Your task to perform on an android device: toggle priority inbox in the gmail app Image 0: 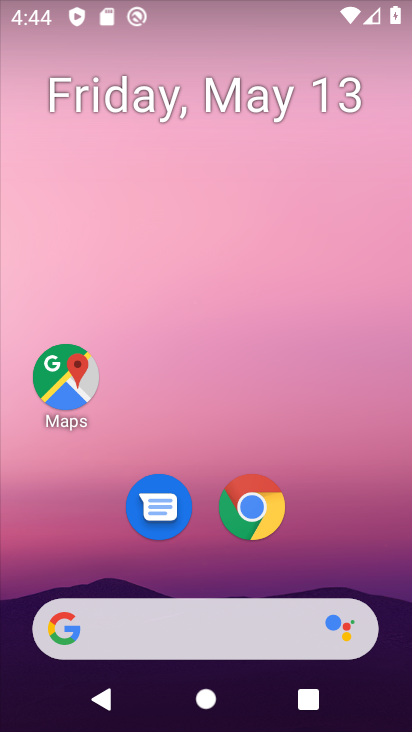
Step 0: drag from (318, 494) to (259, 95)
Your task to perform on an android device: toggle priority inbox in the gmail app Image 1: 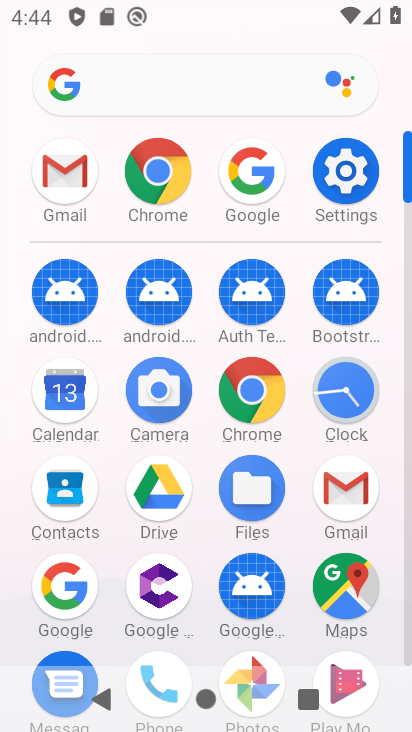
Step 1: click (341, 493)
Your task to perform on an android device: toggle priority inbox in the gmail app Image 2: 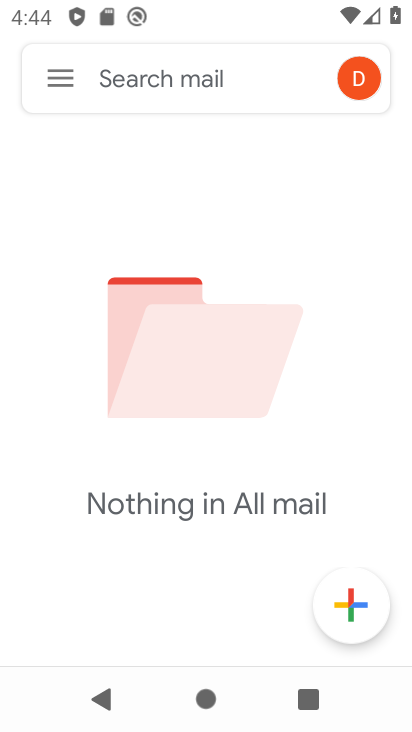
Step 2: click (68, 77)
Your task to perform on an android device: toggle priority inbox in the gmail app Image 3: 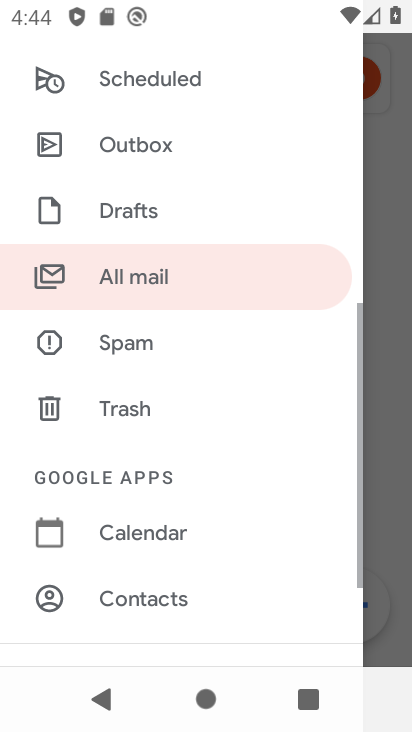
Step 3: drag from (163, 557) to (146, 111)
Your task to perform on an android device: toggle priority inbox in the gmail app Image 4: 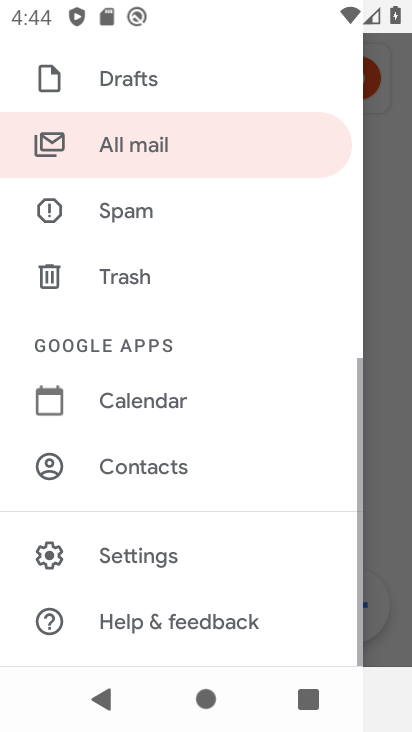
Step 4: click (166, 549)
Your task to perform on an android device: toggle priority inbox in the gmail app Image 5: 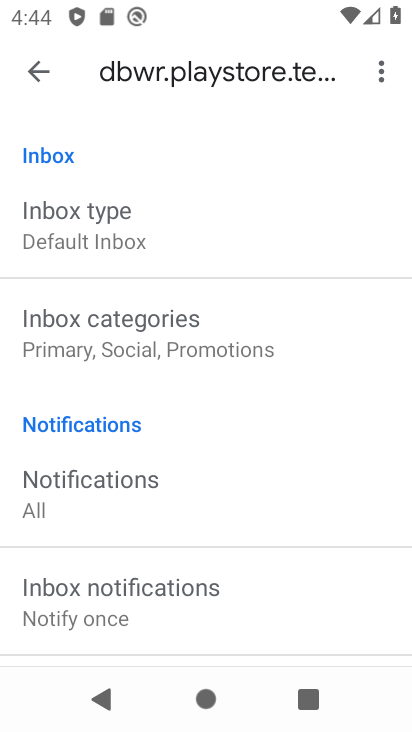
Step 5: click (156, 233)
Your task to perform on an android device: toggle priority inbox in the gmail app Image 6: 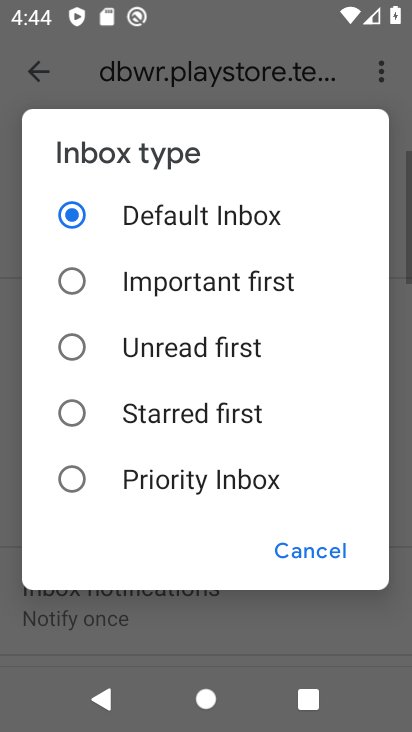
Step 6: click (175, 491)
Your task to perform on an android device: toggle priority inbox in the gmail app Image 7: 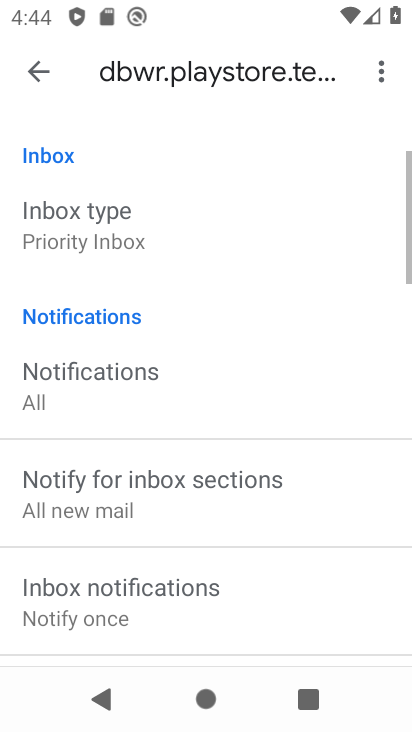
Step 7: task complete